Your task to perform on an android device: toggle translation in the chrome app Image 0: 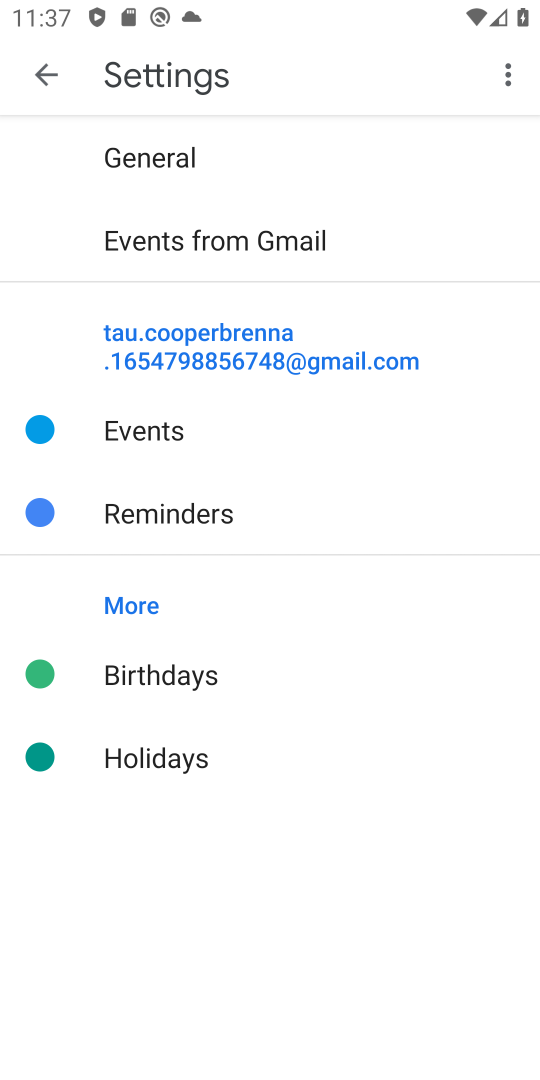
Step 0: press home button
Your task to perform on an android device: toggle translation in the chrome app Image 1: 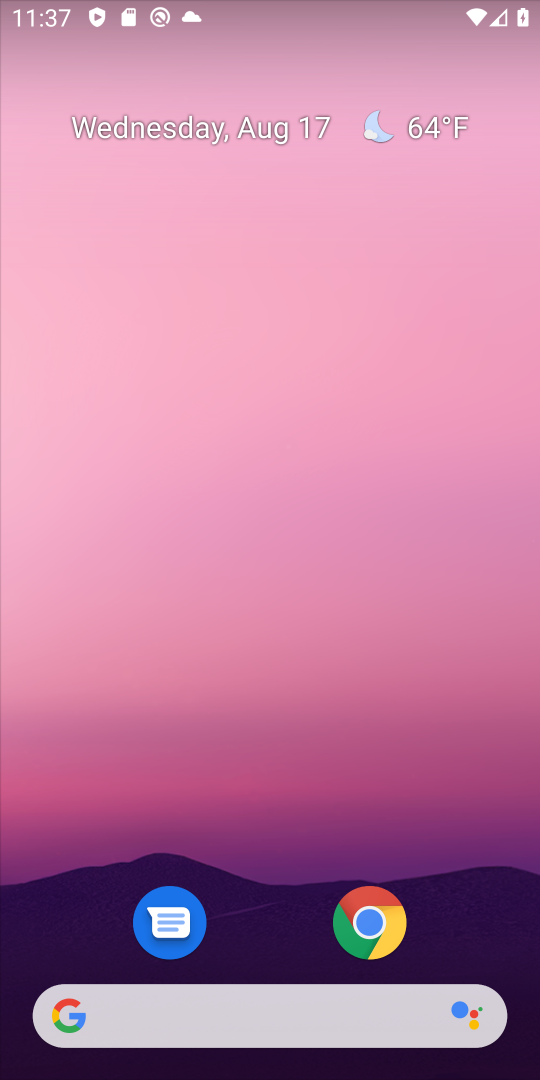
Step 1: click (374, 926)
Your task to perform on an android device: toggle translation in the chrome app Image 2: 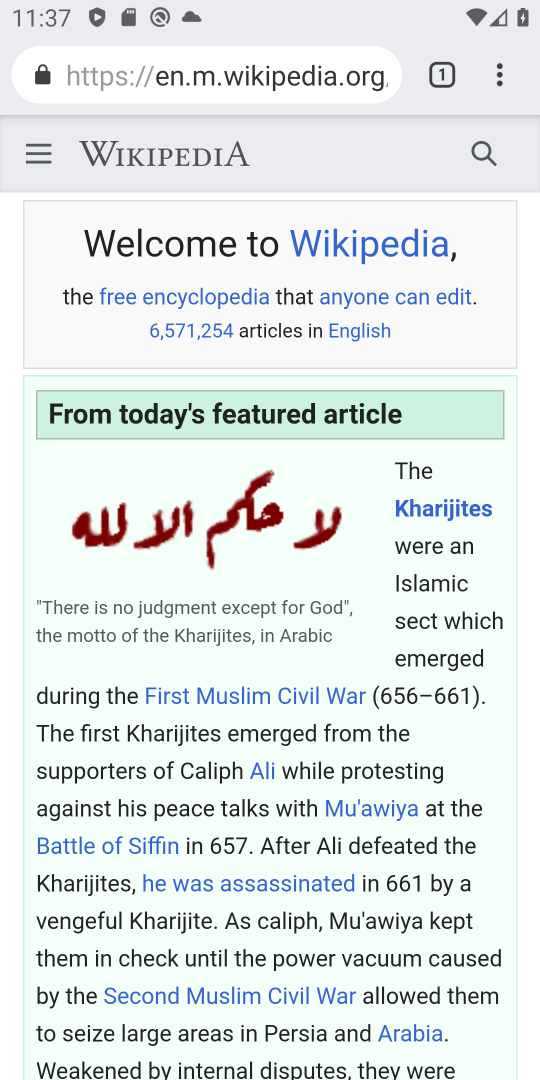
Step 2: click (486, 77)
Your task to perform on an android device: toggle translation in the chrome app Image 3: 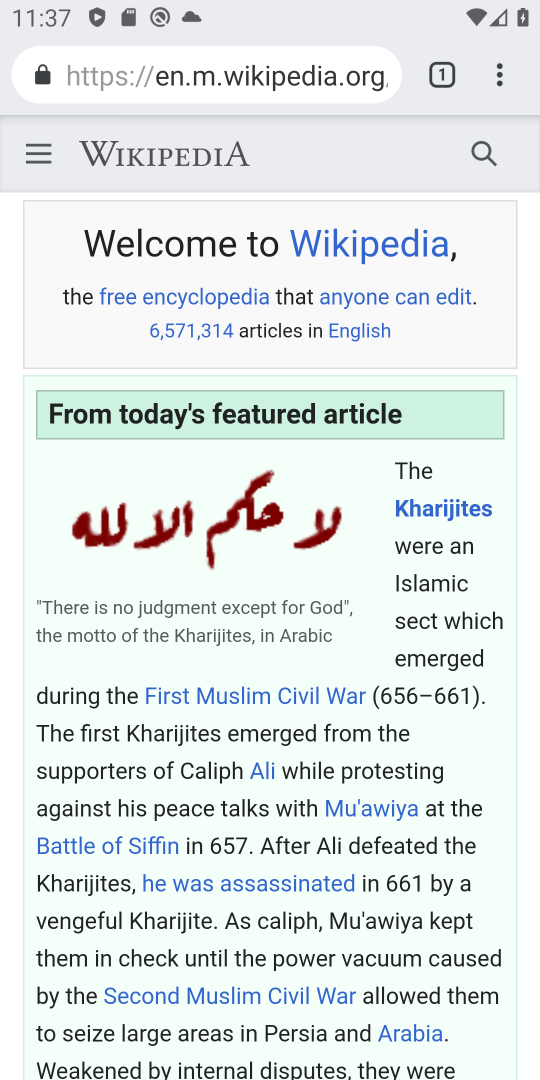
Step 3: click (489, 65)
Your task to perform on an android device: toggle translation in the chrome app Image 4: 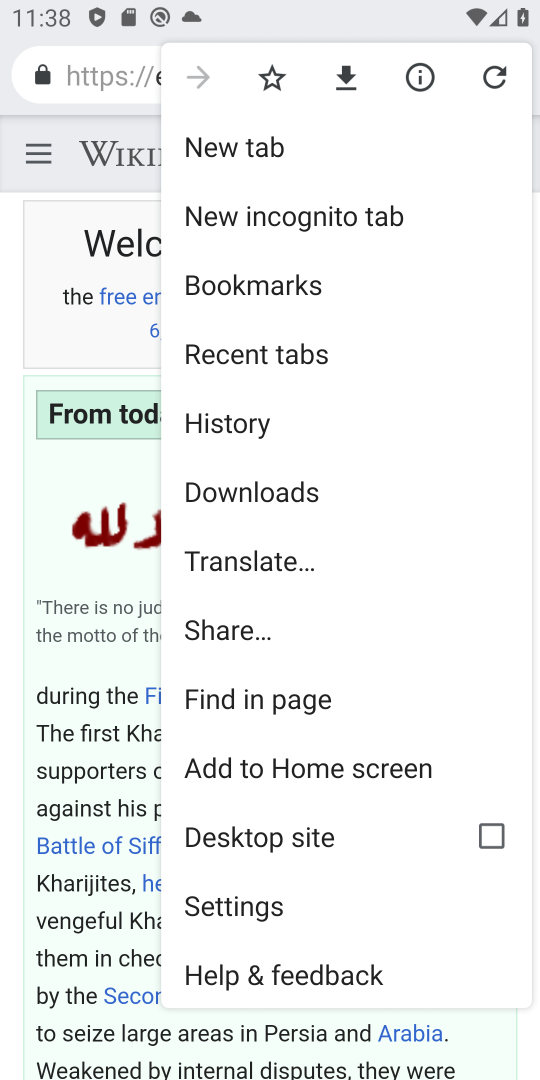
Step 4: click (262, 899)
Your task to perform on an android device: toggle translation in the chrome app Image 5: 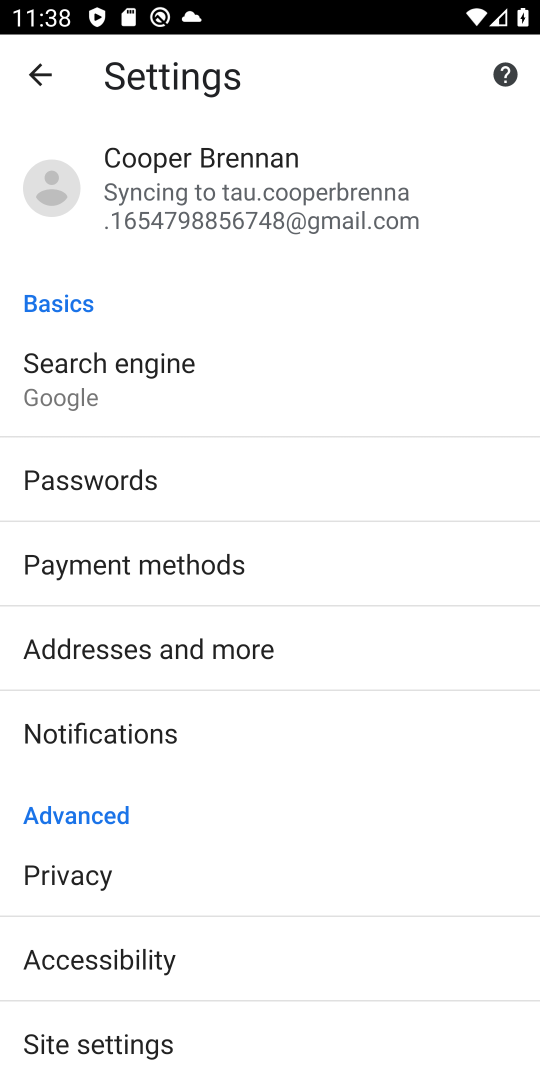
Step 5: drag from (240, 1014) to (217, 737)
Your task to perform on an android device: toggle translation in the chrome app Image 6: 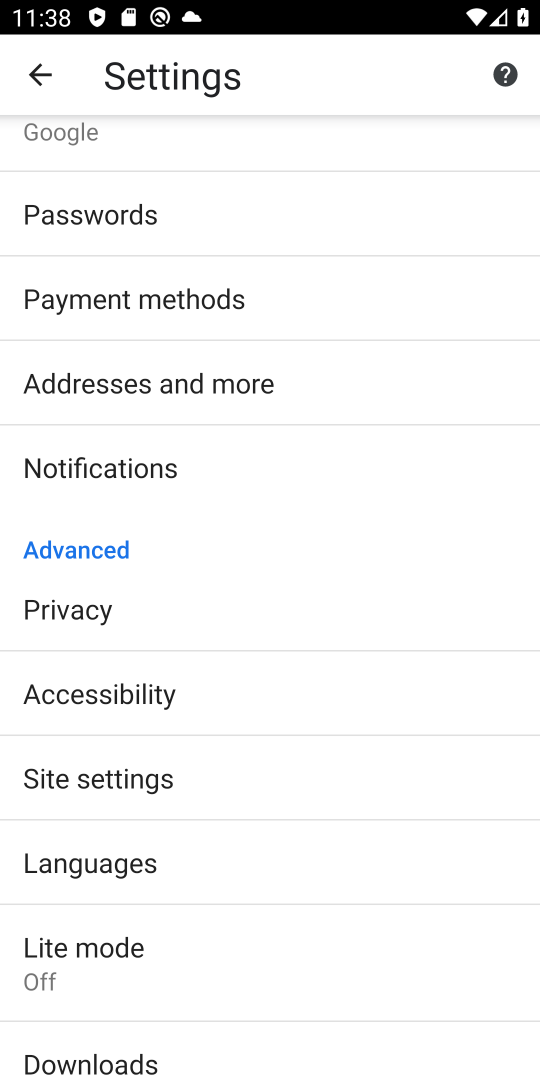
Step 6: click (112, 861)
Your task to perform on an android device: toggle translation in the chrome app Image 7: 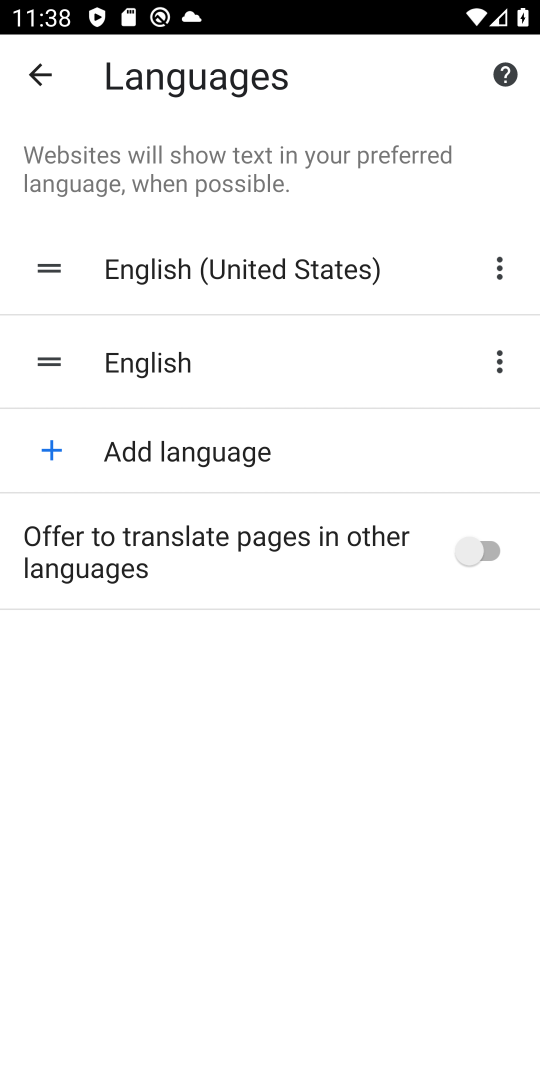
Step 7: click (471, 547)
Your task to perform on an android device: toggle translation in the chrome app Image 8: 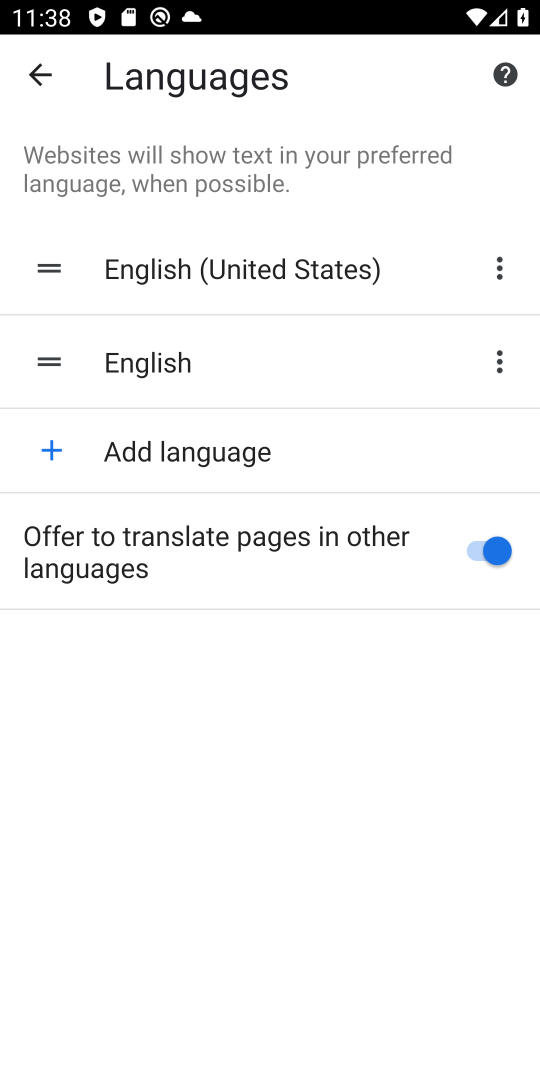
Step 8: task complete